Your task to perform on an android device: turn on translation in the chrome app Image 0: 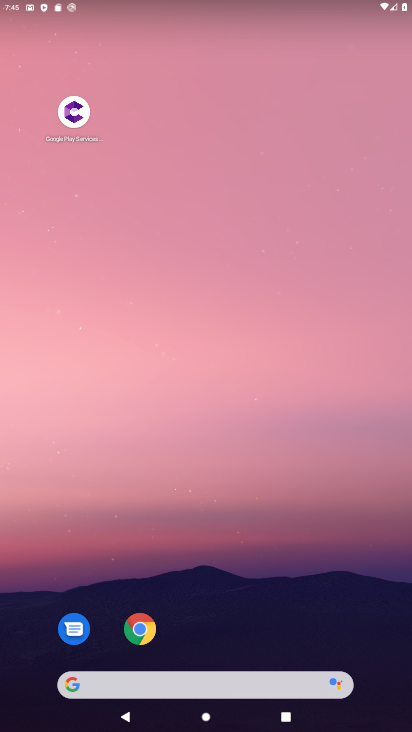
Step 0: click (135, 631)
Your task to perform on an android device: turn on translation in the chrome app Image 1: 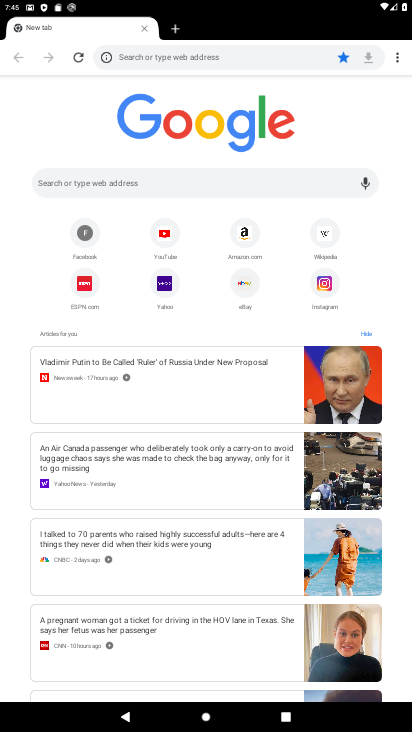
Step 1: drag from (400, 49) to (319, 250)
Your task to perform on an android device: turn on translation in the chrome app Image 2: 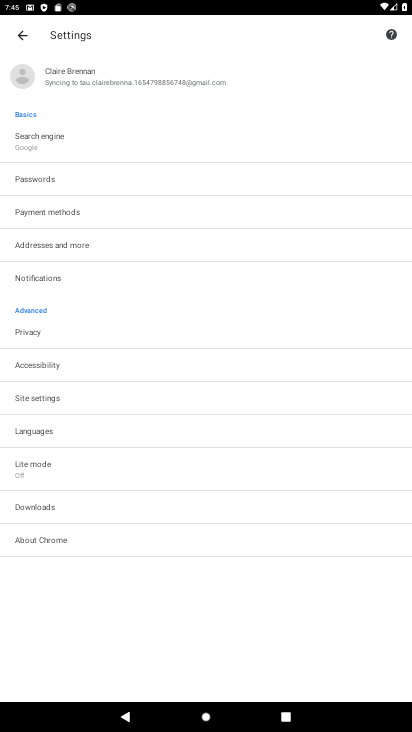
Step 2: click (73, 435)
Your task to perform on an android device: turn on translation in the chrome app Image 3: 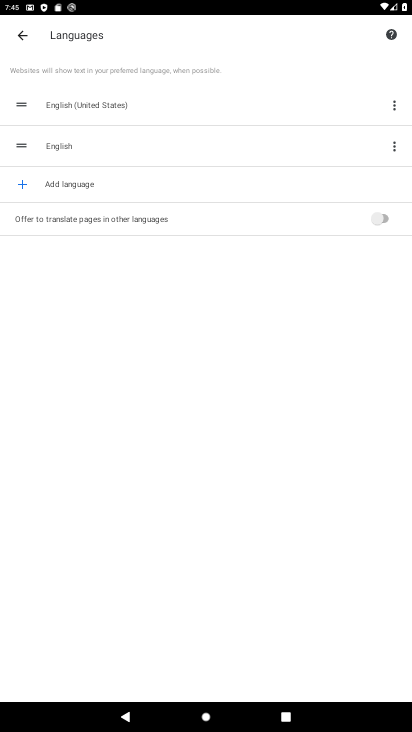
Step 3: click (383, 214)
Your task to perform on an android device: turn on translation in the chrome app Image 4: 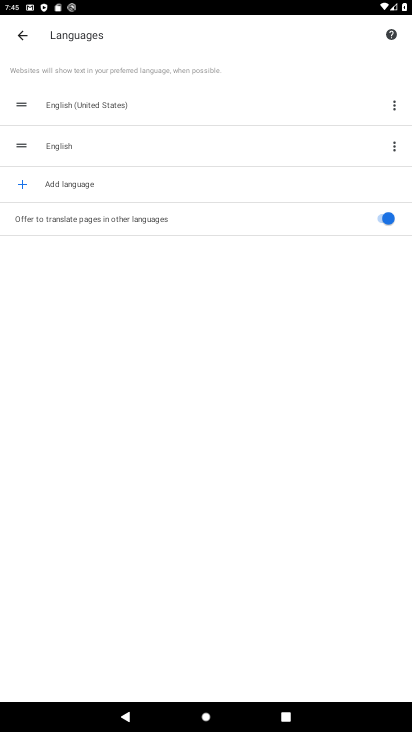
Step 4: task complete